Your task to perform on an android device: open app "WhatsApp Messenger" (install if not already installed), go to login, and select forgot password Image 0: 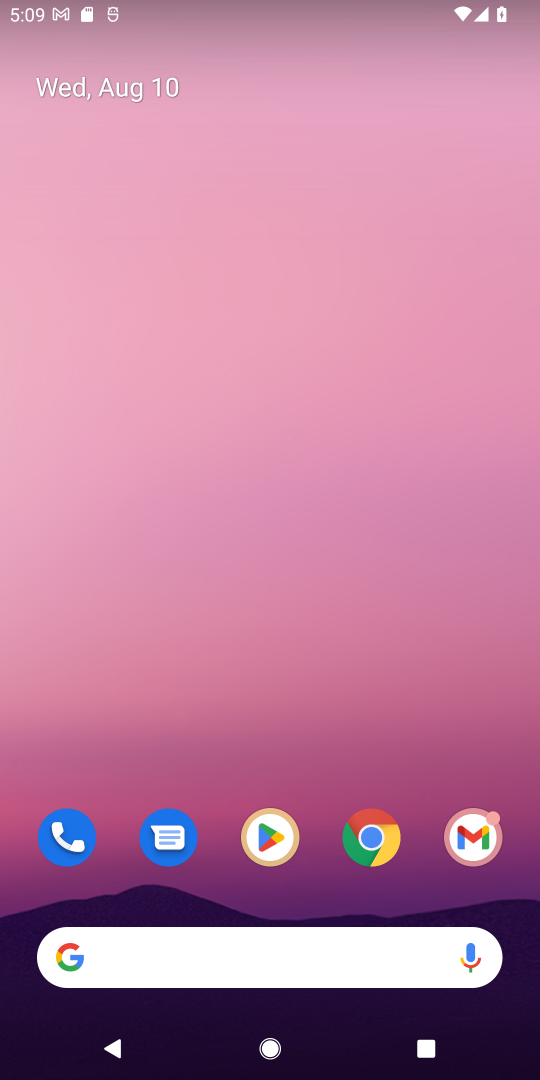
Step 0: press home button
Your task to perform on an android device: open app "WhatsApp Messenger" (install if not already installed), go to login, and select forgot password Image 1: 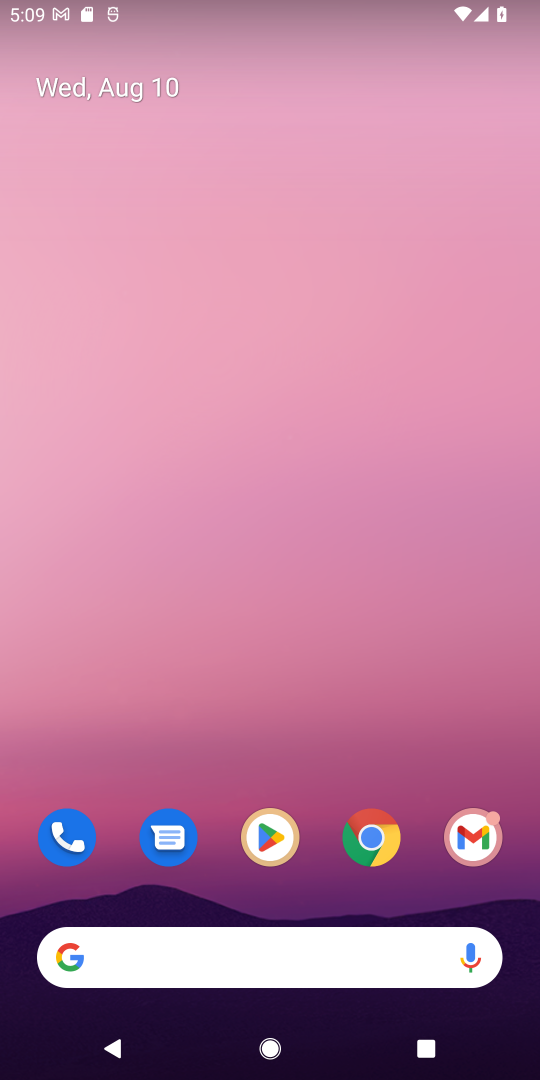
Step 1: click (274, 837)
Your task to perform on an android device: open app "WhatsApp Messenger" (install if not already installed), go to login, and select forgot password Image 2: 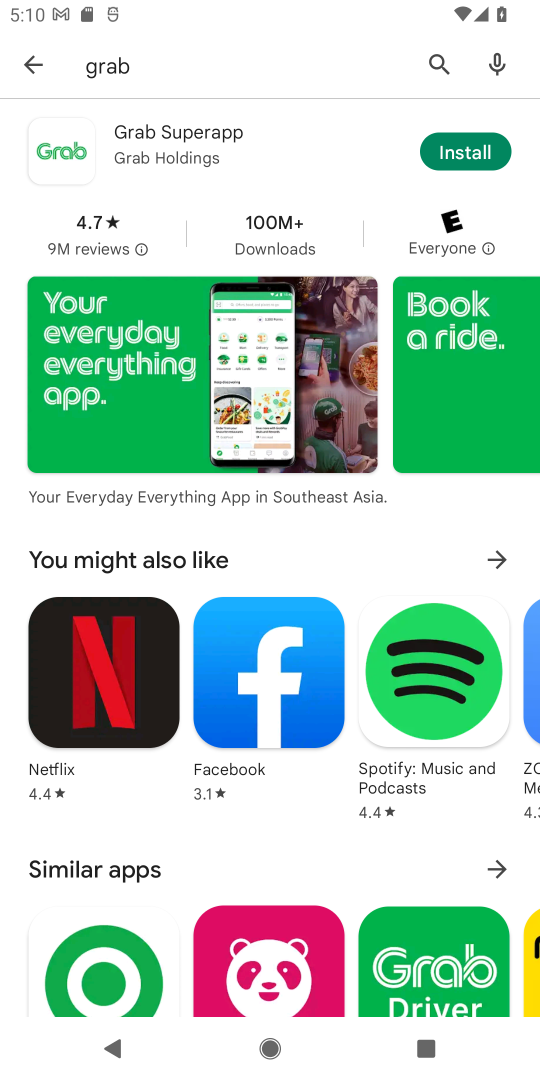
Step 2: click (435, 63)
Your task to perform on an android device: open app "WhatsApp Messenger" (install if not already installed), go to login, and select forgot password Image 3: 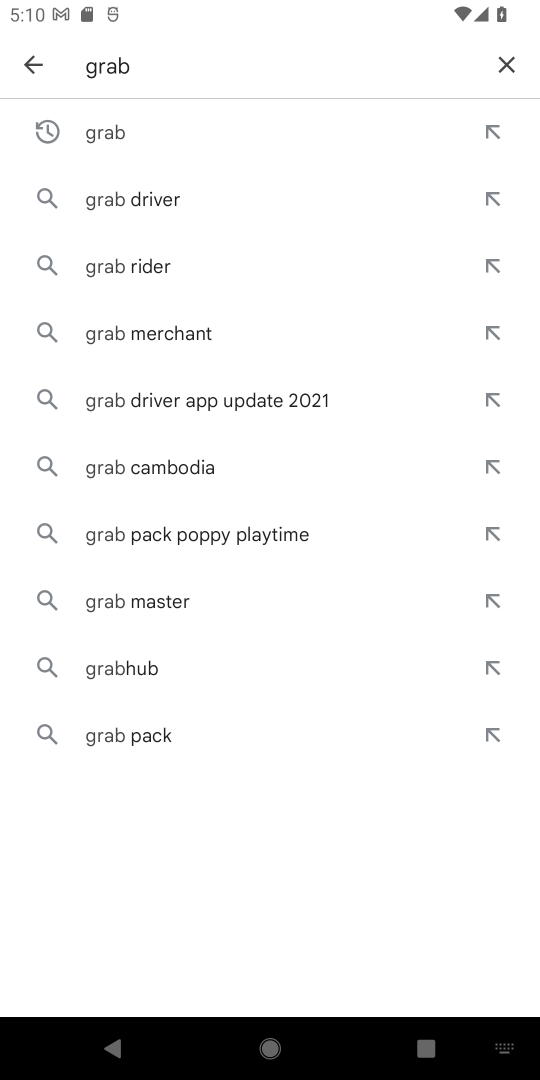
Step 3: click (512, 65)
Your task to perform on an android device: open app "WhatsApp Messenger" (install if not already installed), go to login, and select forgot password Image 4: 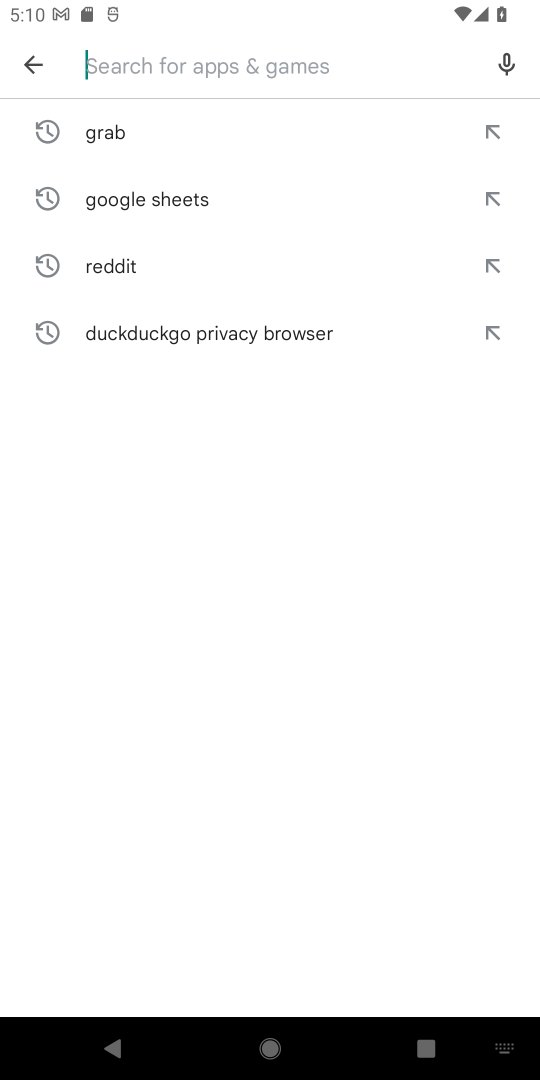
Step 4: type "WhatsApp Messenger"
Your task to perform on an android device: open app "WhatsApp Messenger" (install if not already installed), go to login, and select forgot password Image 5: 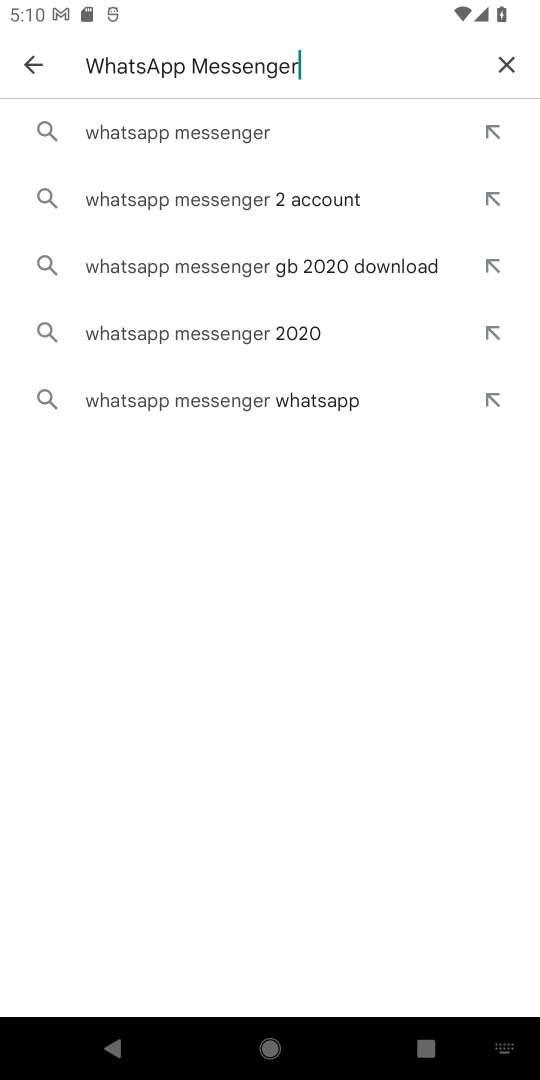
Step 5: click (145, 125)
Your task to perform on an android device: open app "WhatsApp Messenger" (install if not already installed), go to login, and select forgot password Image 6: 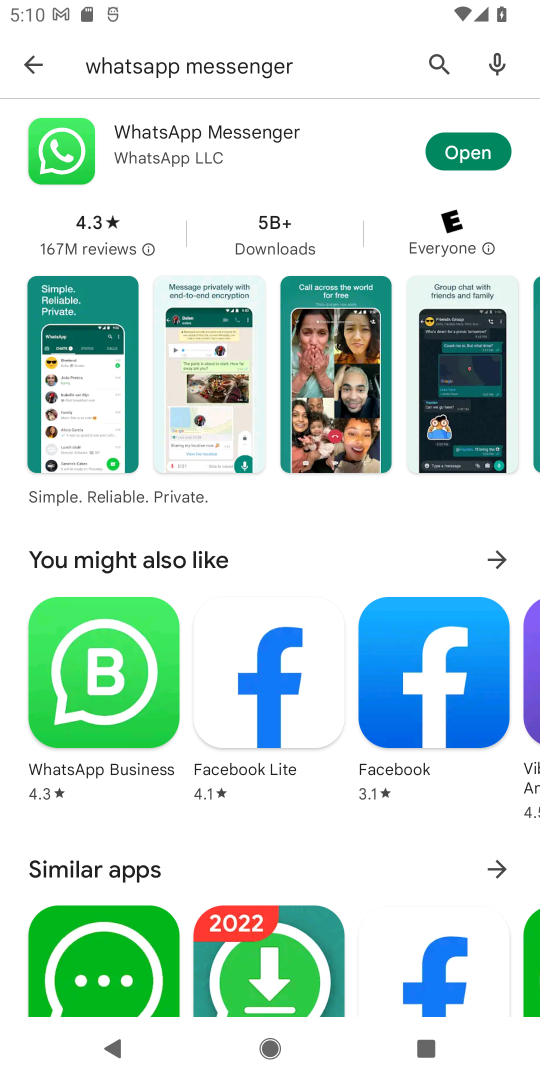
Step 6: click (467, 150)
Your task to perform on an android device: open app "WhatsApp Messenger" (install if not already installed), go to login, and select forgot password Image 7: 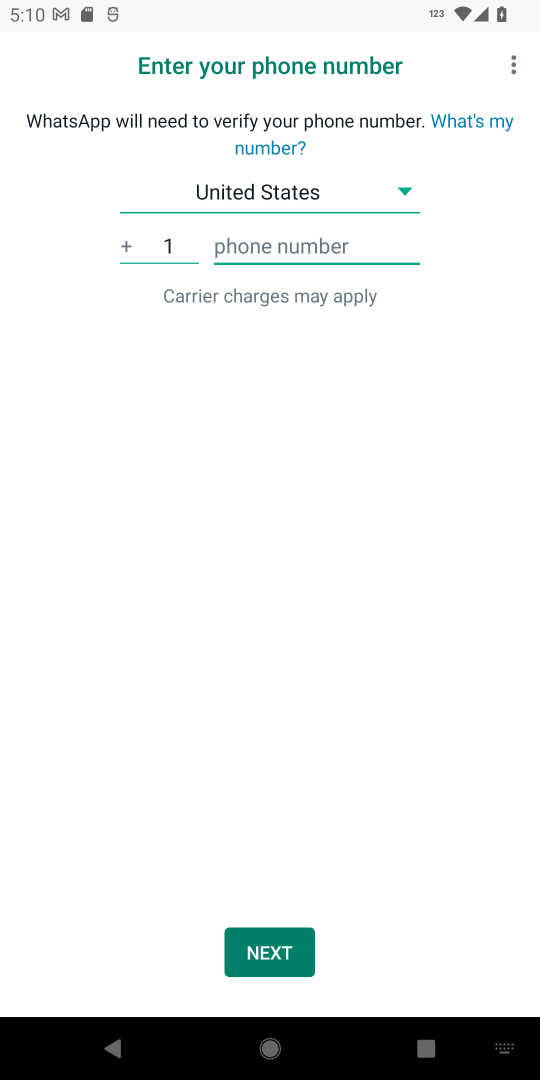
Step 7: task complete